Your task to perform on an android device: Search for Italian restaurants on Maps Image 0: 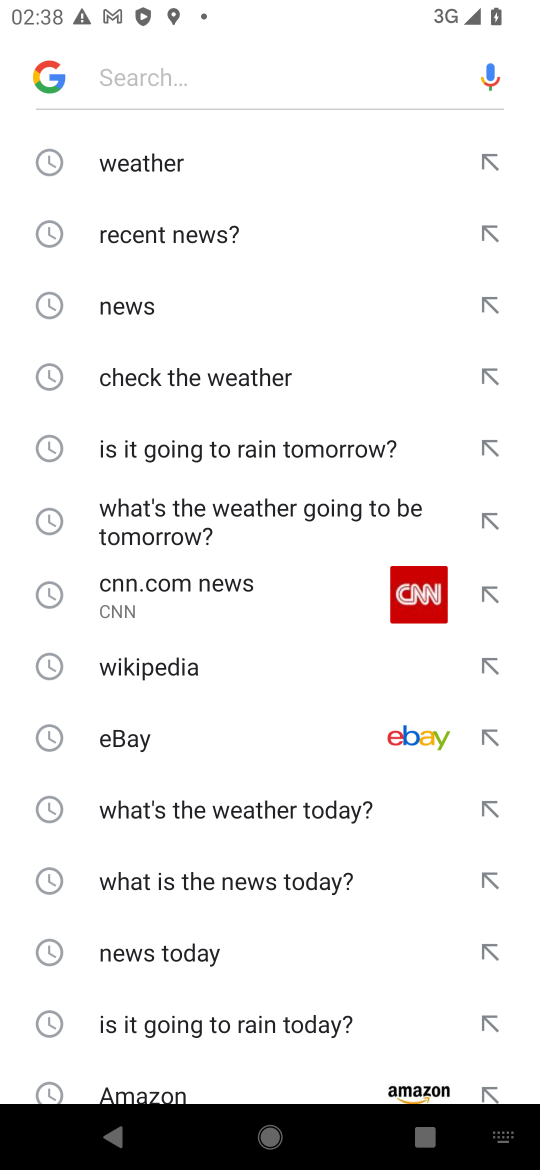
Step 0: press home button
Your task to perform on an android device: Search for Italian restaurants on Maps Image 1: 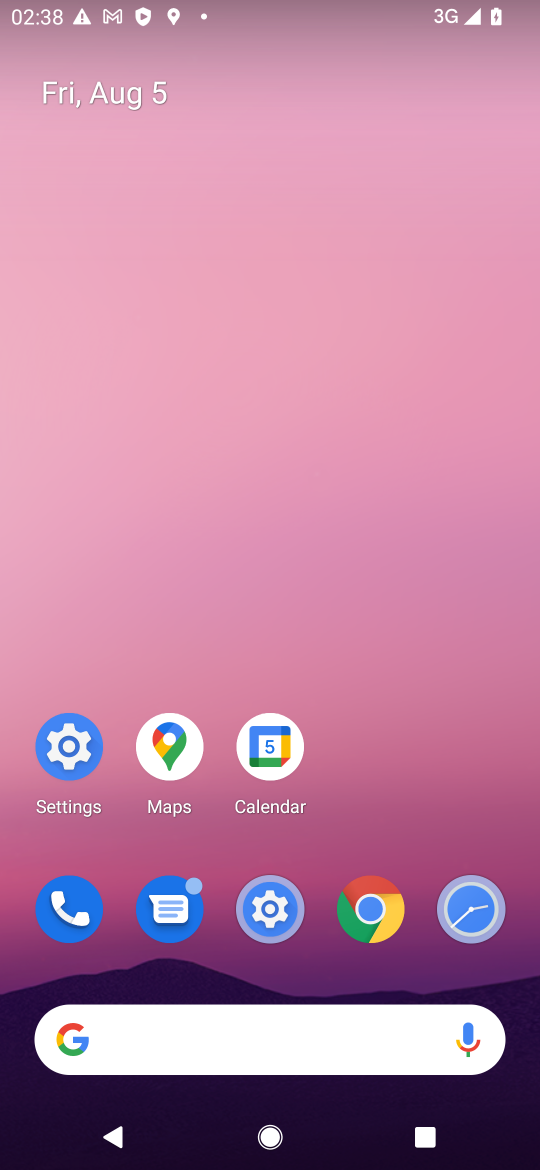
Step 1: click (170, 737)
Your task to perform on an android device: Search for Italian restaurants on Maps Image 2: 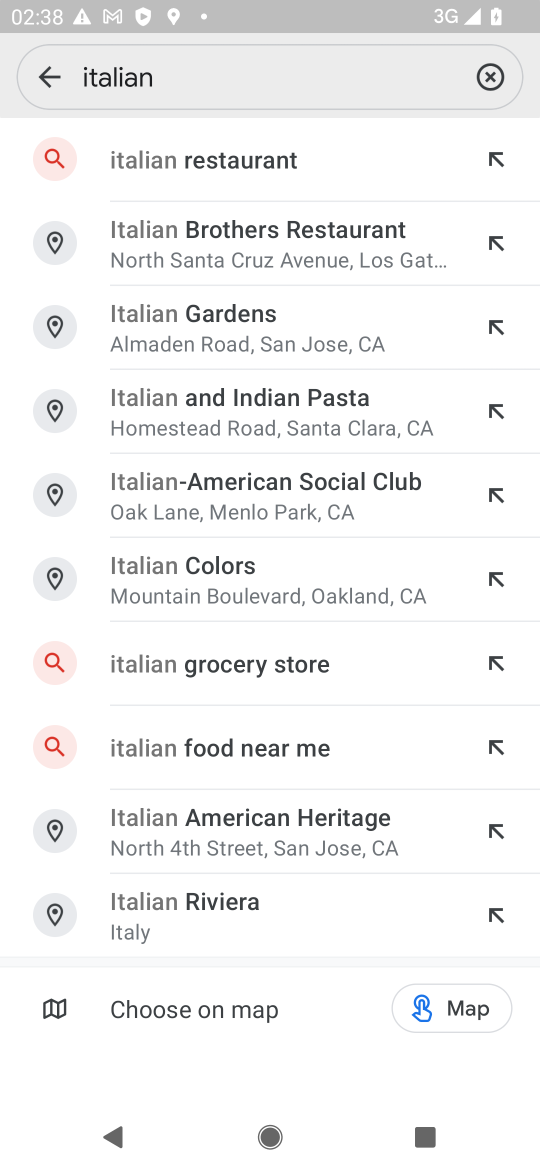
Step 2: click (251, 164)
Your task to perform on an android device: Search for Italian restaurants on Maps Image 3: 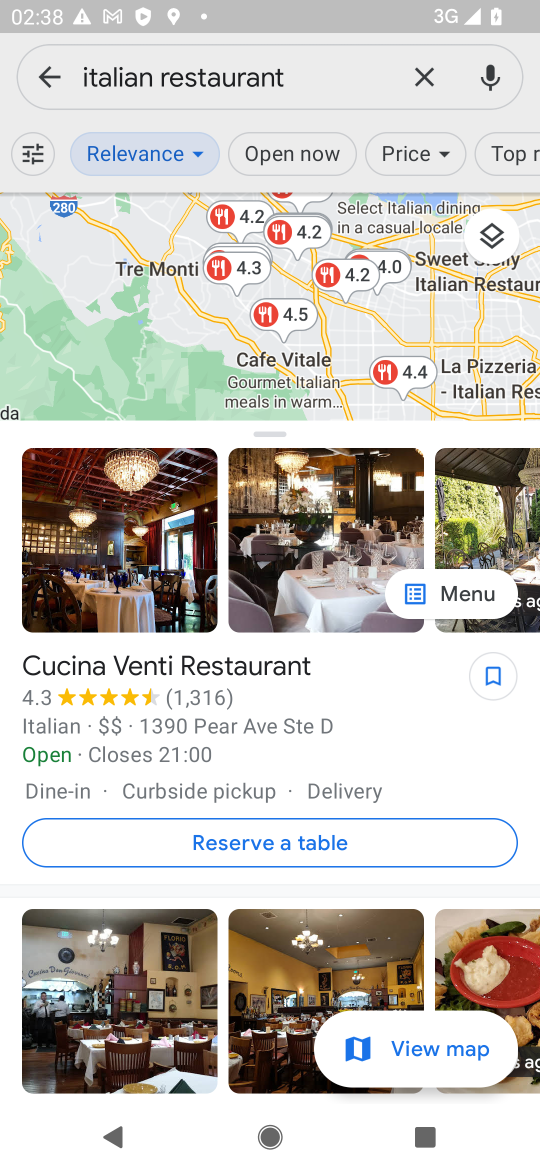
Step 3: task complete